Your task to perform on an android device: toggle pop-ups in chrome Image 0: 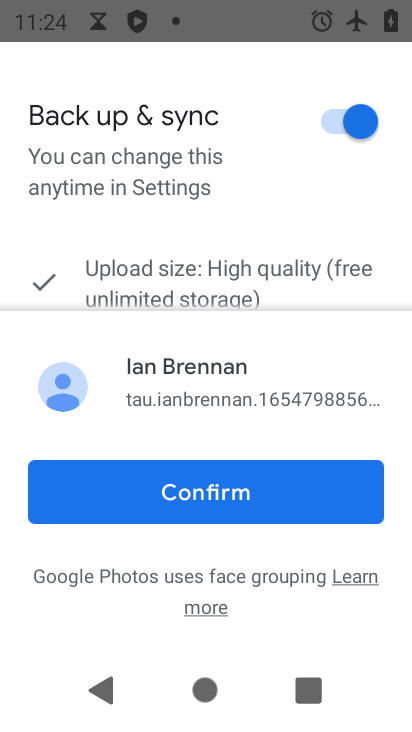
Step 0: press home button
Your task to perform on an android device: toggle pop-ups in chrome Image 1: 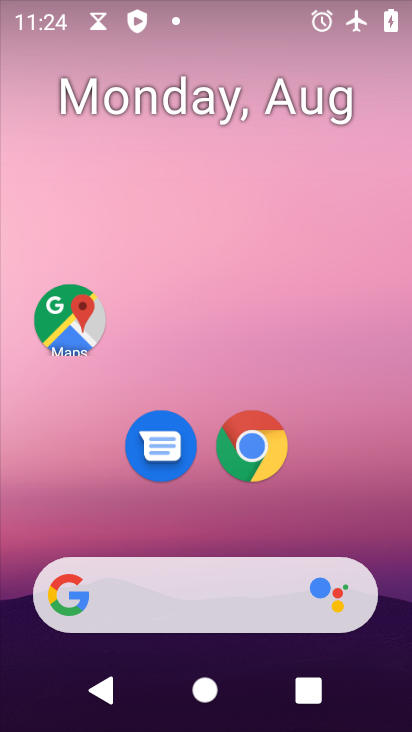
Step 1: drag from (164, 529) to (183, 0)
Your task to perform on an android device: toggle pop-ups in chrome Image 2: 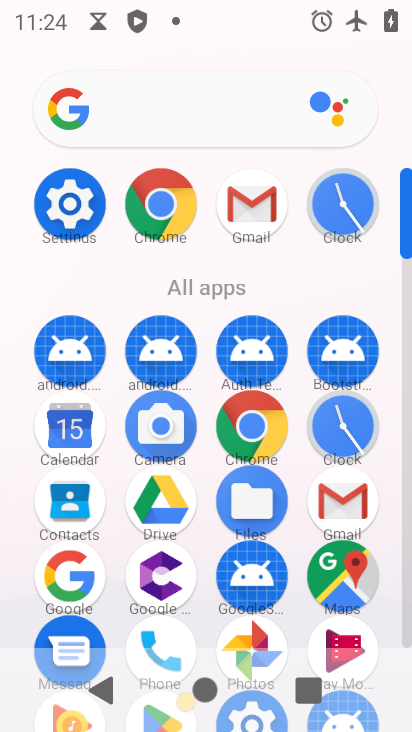
Step 2: click (248, 417)
Your task to perform on an android device: toggle pop-ups in chrome Image 3: 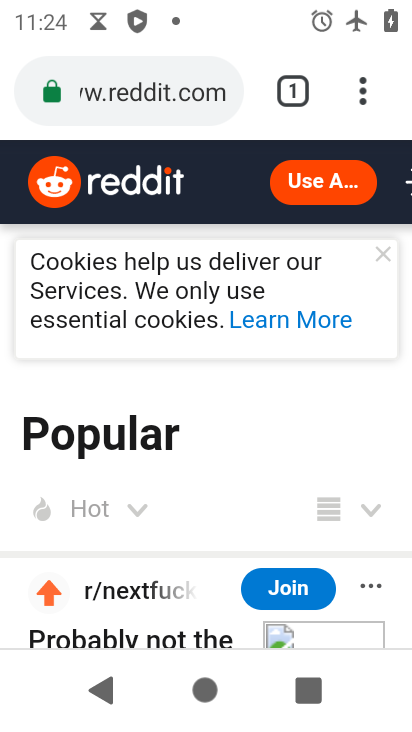
Step 3: click (361, 76)
Your task to perform on an android device: toggle pop-ups in chrome Image 4: 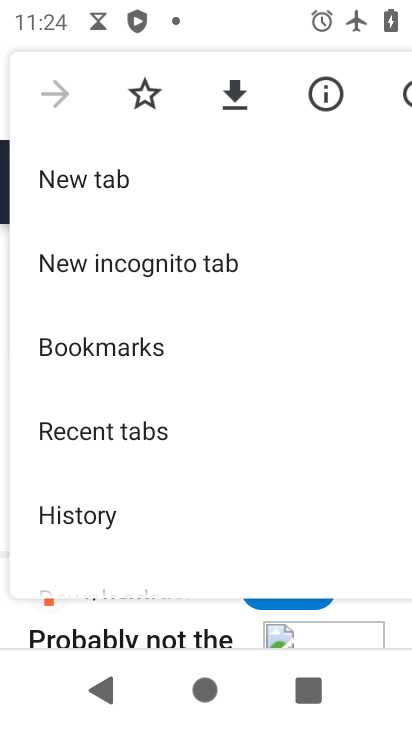
Step 4: drag from (152, 516) to (164, 217)
Your task to perform on an android device: toggle pop-ups in chrome Image 5: 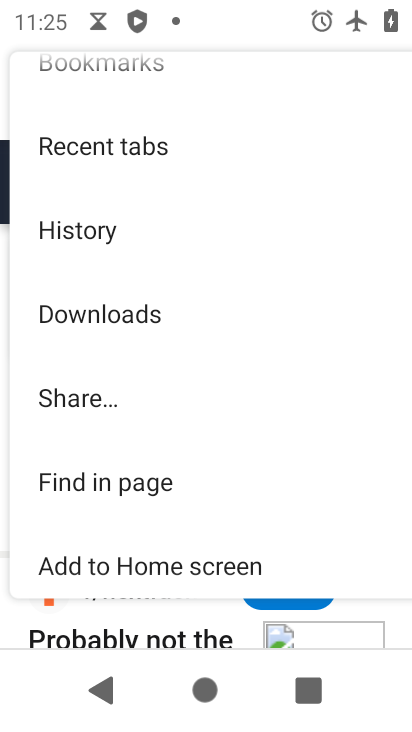
Step 5: drag from (157, 472) to (154, 232)
Your task to perform on an android device: toggle pop-ups in chrome Image 6: 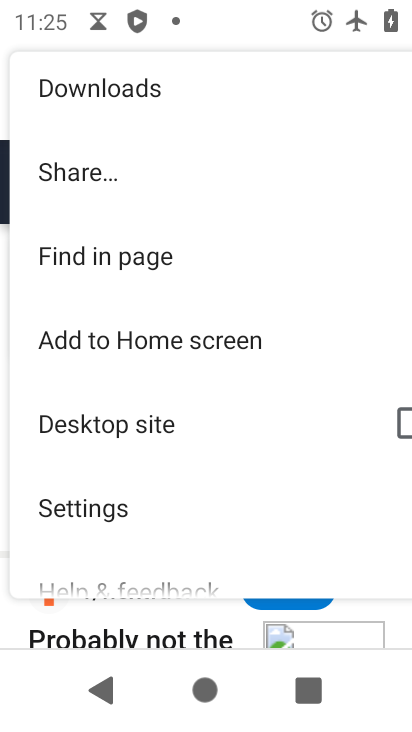
Step 6: click (101, 500)
Your task to perform on an android device: toggle pop-ups in chrome Image 7: 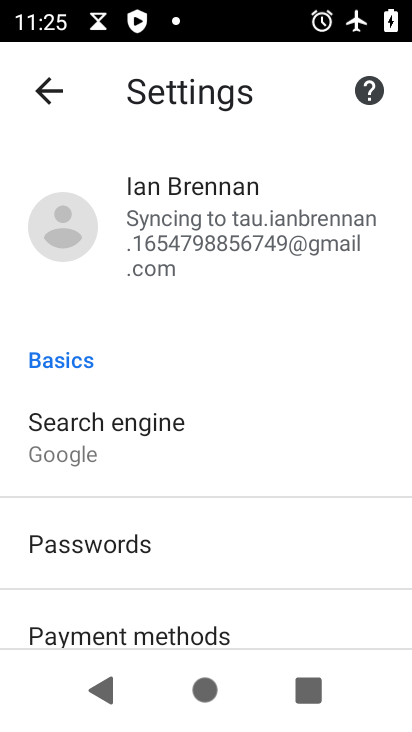
Step 7: drag from (141, 588) to (151, 76)
Your task to perform on an android device: toggle pop-ups in chrome Image 8: 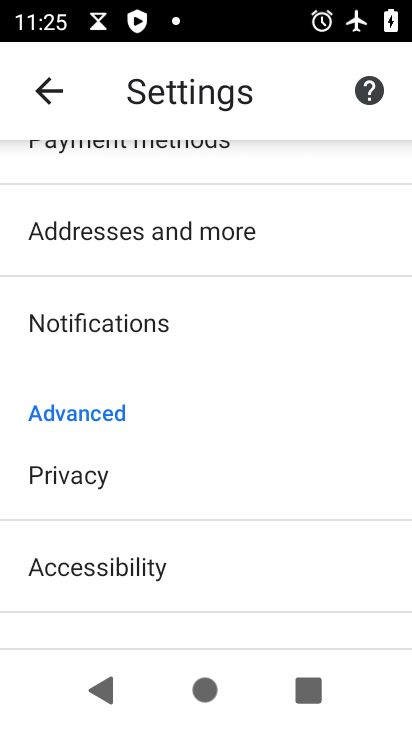
Step 8: drag from (144, 500) to (213, 22)
Your task to perform on an android device: toggle pop-ups in chrome Image 9: 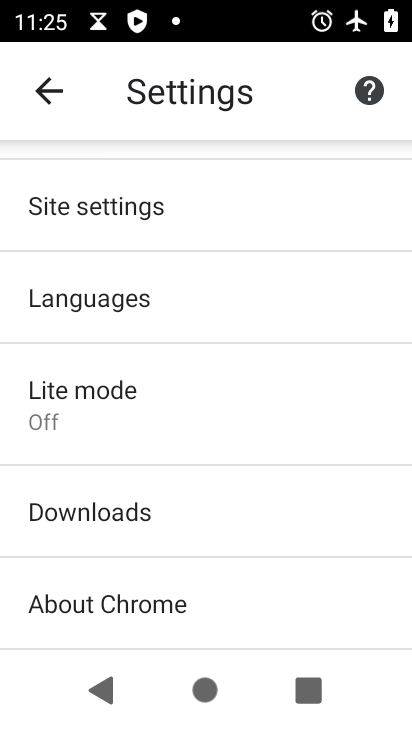
Step 9: drag from (191, 457) to (153, 504)
Your task to perform on an android device: toggle pop-ups in chrome Image 10: 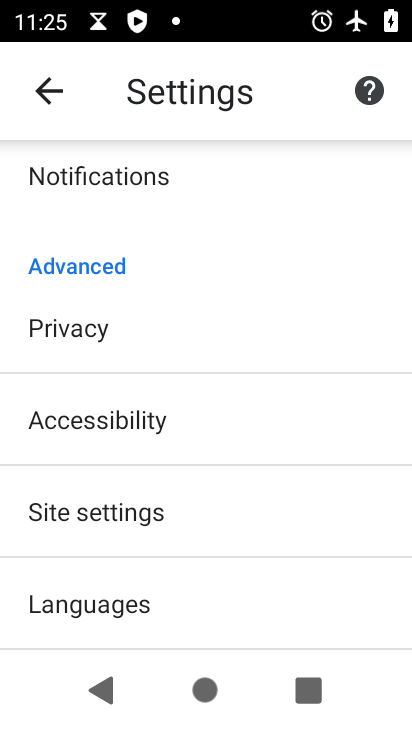
Step 10: click (128, 507)
Your task to perform on an android device: toggle pop-ups in chrome Image 11: 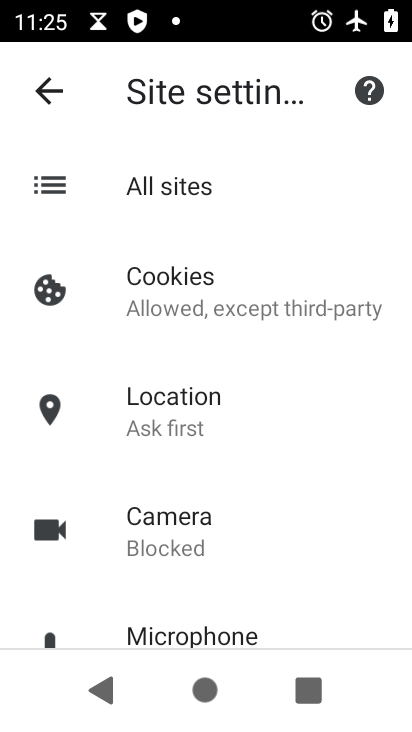
Step 11: drag from (151, 519) to (185, 199)
Your task to perform on an android device: toggle pop-ups in chrome Image 12: 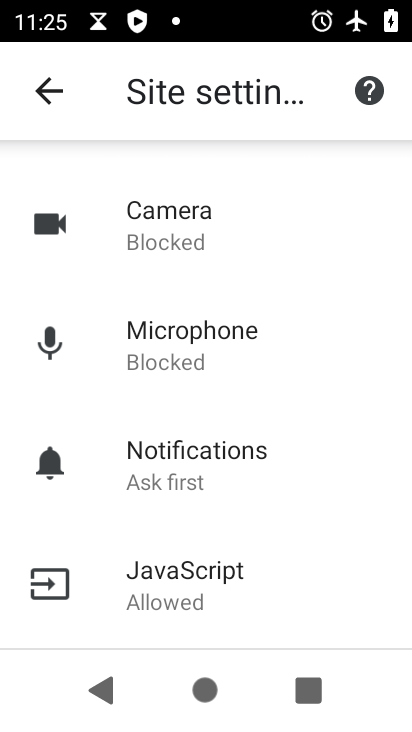
Step 12: drag from (200, 601) to (211, 286)
Your task to perform on an android device: toggle pop-ups in chrome Image 13: 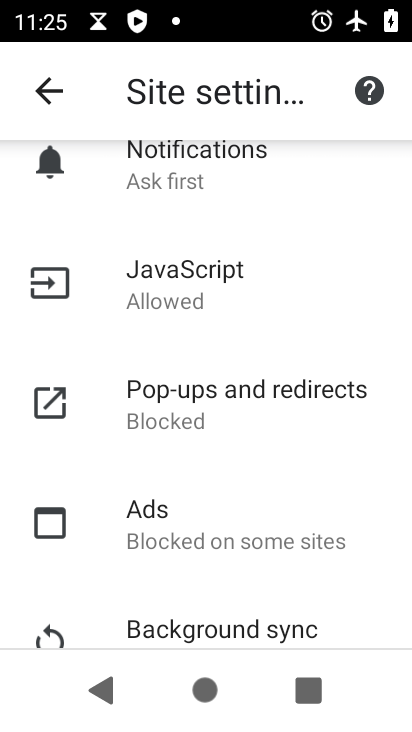
Step 13: click (199, 407)
Your task to perform on an android device: toggle pop-ups in chrome Image 14: 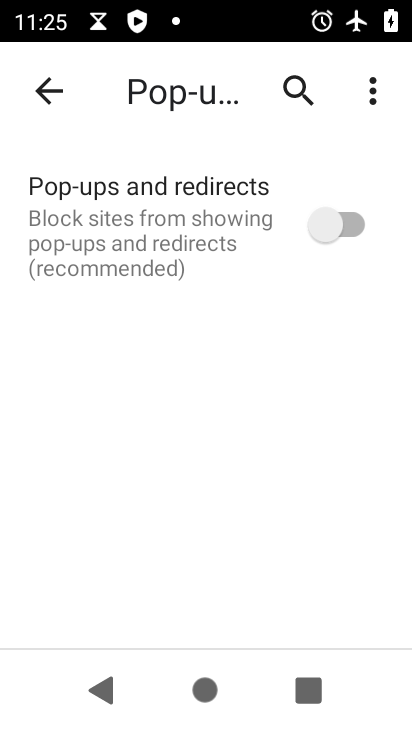
Step 14: click (375, 222)
Your task to perform on an android device: toggle pop-ups in chrome Image 15: 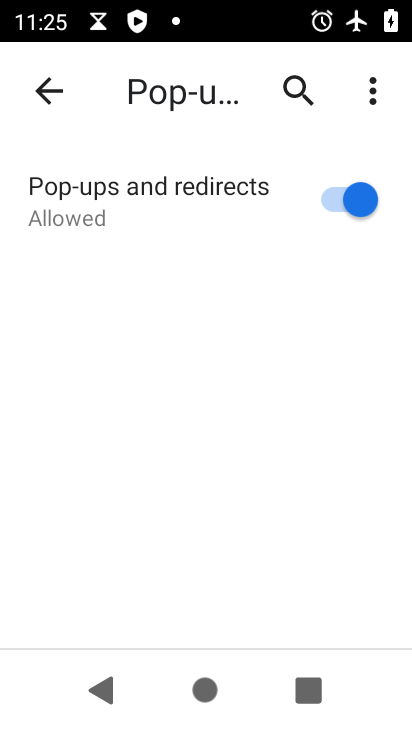
Step 15: task complete